Your task to perform on an android device: install app "Upside-Cash back on gas & food" Image 0: 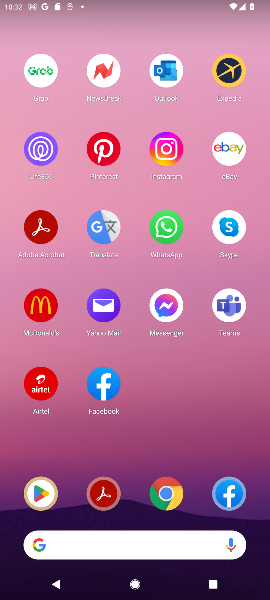
Step 0: click (18, 487)
Your task to perform on an android device: install app "Upside-Cash back on gas & food" Image 1: 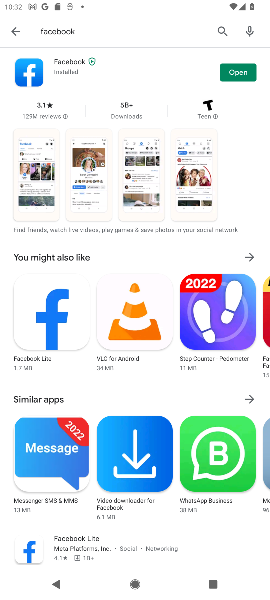
Step 1: task complete